Your task to perform on an android device: change the clock display to digital Image 0: 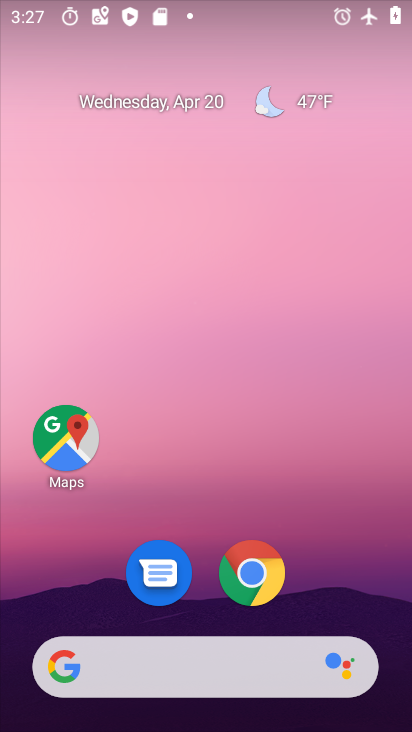
Step 0: drag from (209, 724) to (192, 152)
Your task to perform on an android device: change the clock display to digital Image 1: 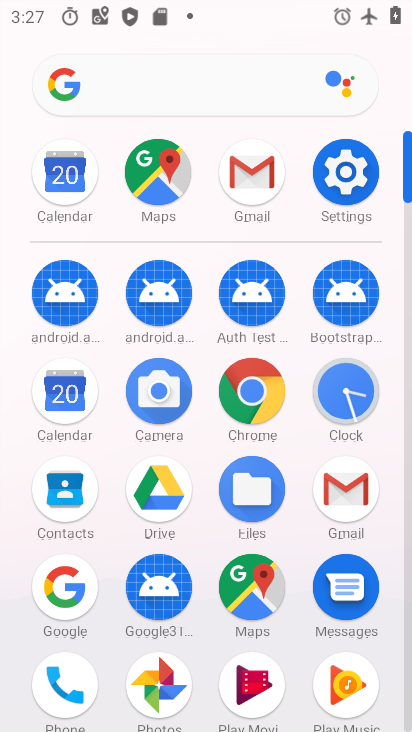
Step 1: click (348, 392)
Your task to perform on an android device: change the clock display to digital Image 2: 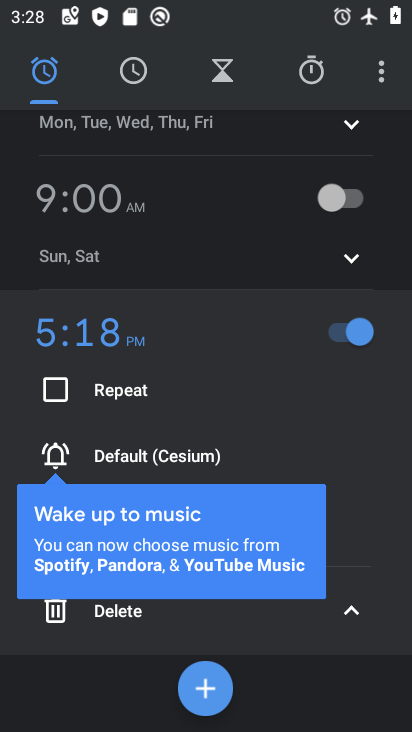
Step 2: click (381, 79)
Your task to perform on an android device: change the clock display to digital Image 3: 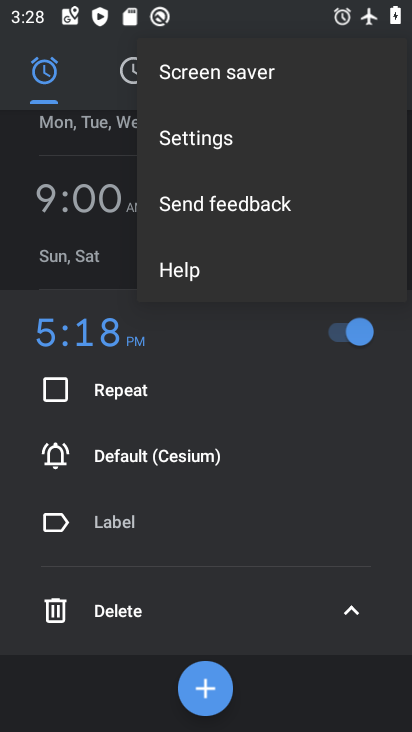
Step 3: click (196, 139)
Your task to perform on an android device: change the clock display to digital Image 4: 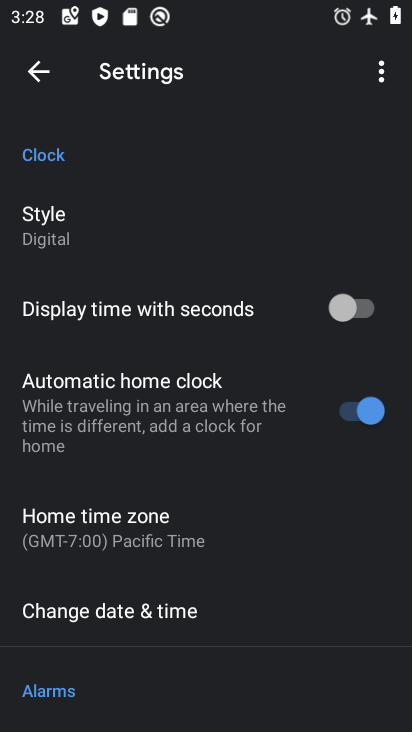
Step 4: task complete